Your task to perform on an android device: turn on wifi Image 0: 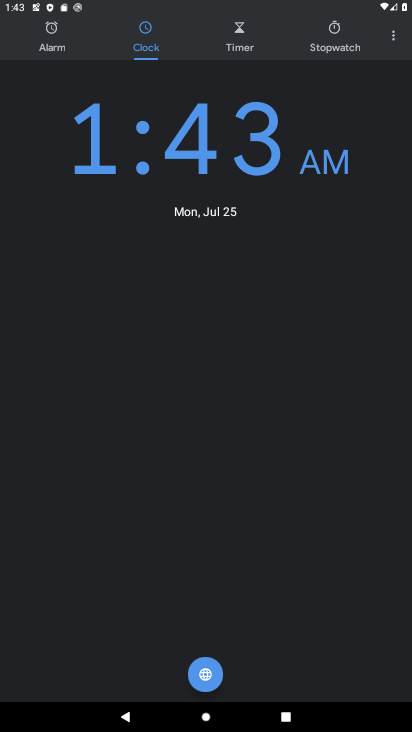
Step 0: press home button
Your task to perform on an android device: turn on wifi Image 1: 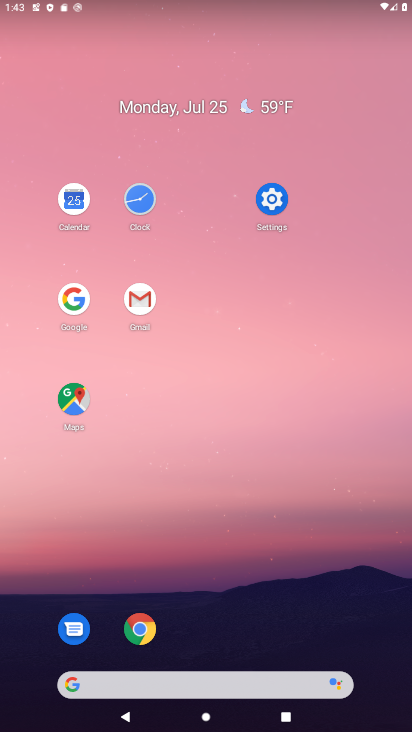
Step 1: click (287, 190)
Your task to perform on an android device: turn on wifi Image 2: 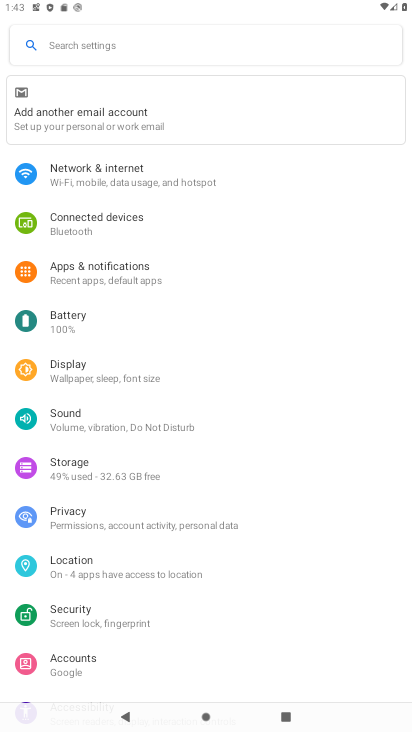
Step 2: click (163, 180)
Your task to perform on an android device: turn on wifi Image 3: 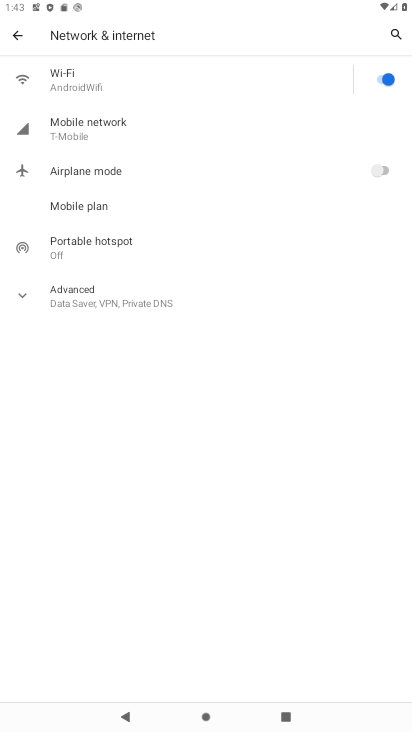
Step 3: task complete